Your task to perform on an android device: change notification settings in the gmail app Image 0: 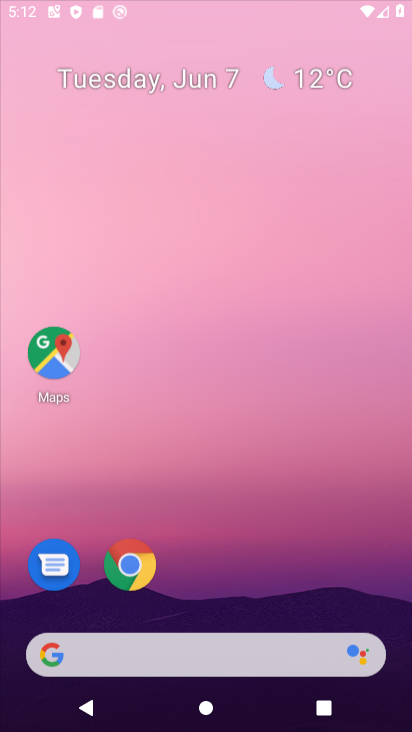
Step 0: press back button
Your task to perform on an android device: change notification settings in the gmail app Image 1: 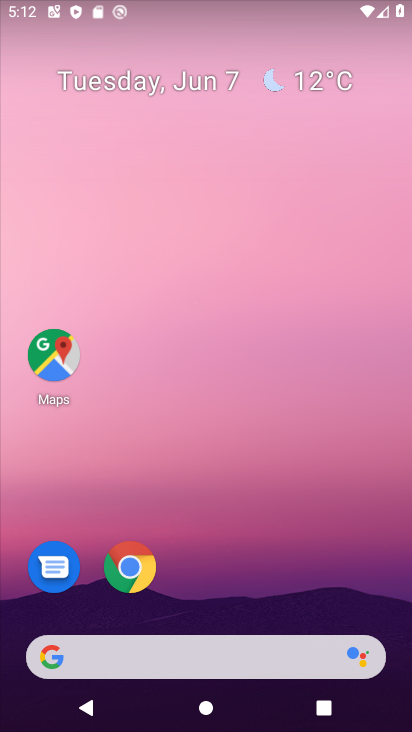
Step 1: drag from (257, 447) to (233, 40)
Your task to perform on an android device: change notification settings in the gmail app Image 2: 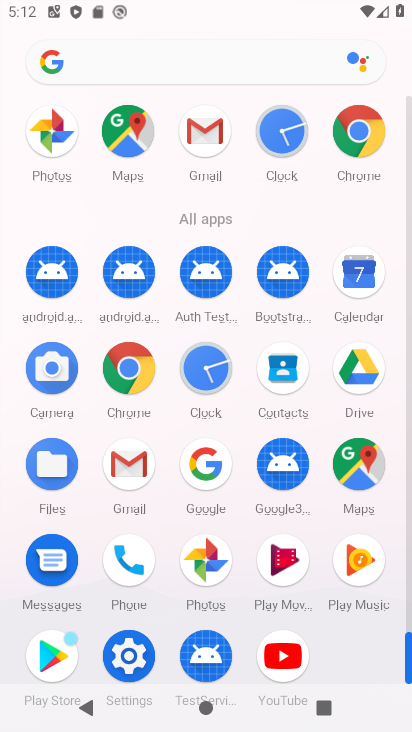
Step 2: drag from (6, 621) to (18, 299)
Your task to perform on an android device: change notification settings in the gmail app Image 3: 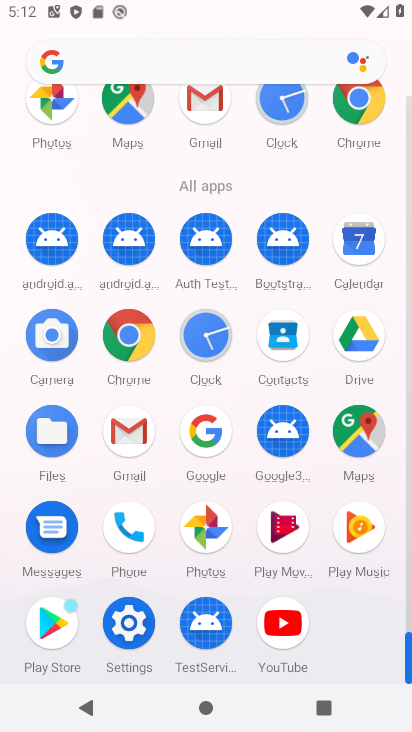
Step 3: click (128, 424)
Your task to perform on an android device: change notification settings in the gmail app Image 4: 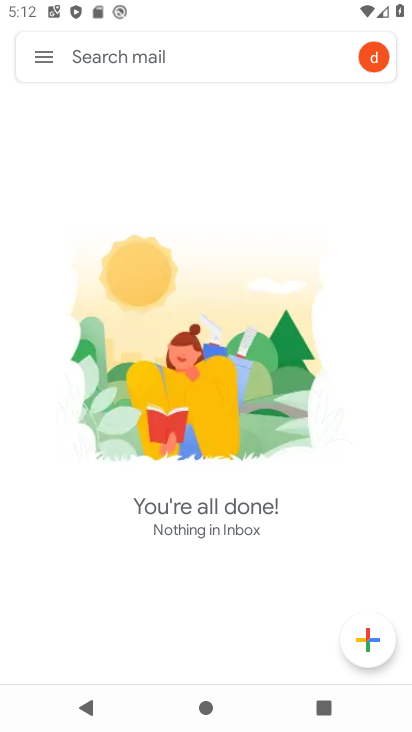
Step 4: click (31, 62)
Your task to perform on an android device: change notification settings in the gmail app Image 5: 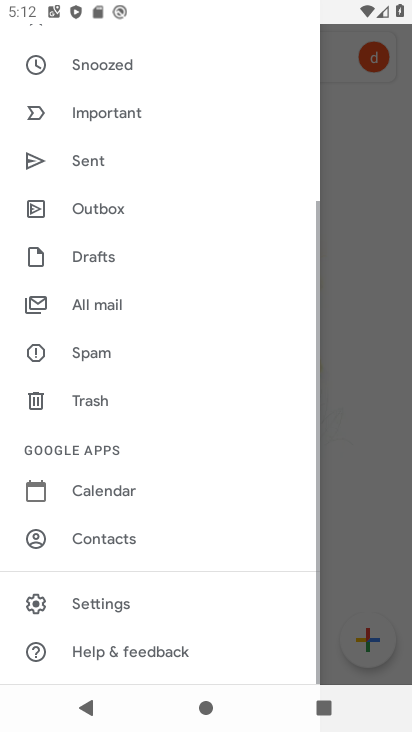
Step 5: drag from (147, 595) to (181, 169)
Your task to perform on an android device: change notification settings in the gmail app Image 6: 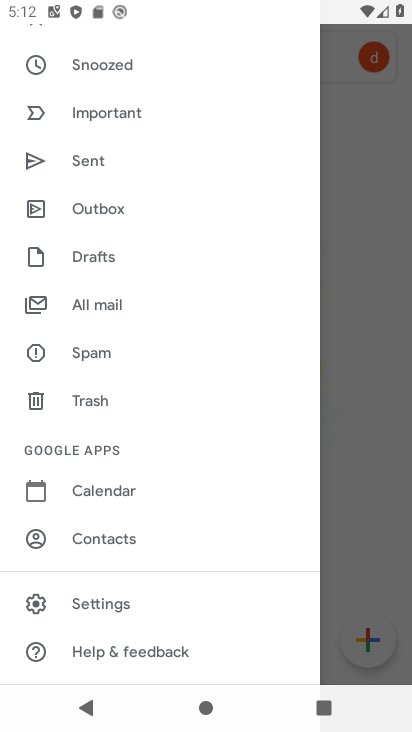
Step 6: click (122, 605)
Your task to perform on an android device: change notification settings in the gmail app Image 7: 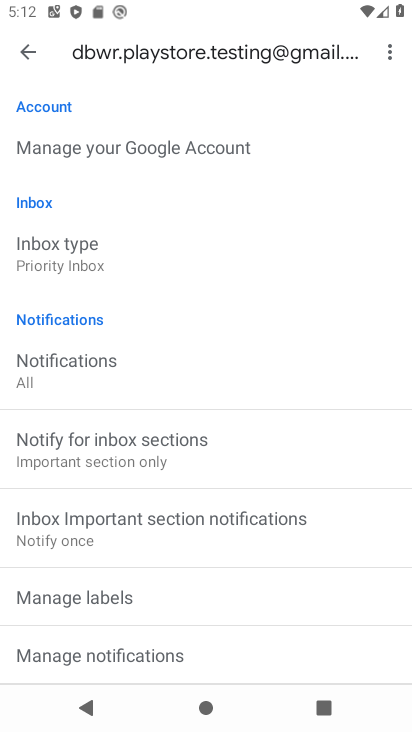
Step 7: drag from (179, 581) to (241, 195)
Your task to perform on an android device: change notification settings in the gmail app Image 8: 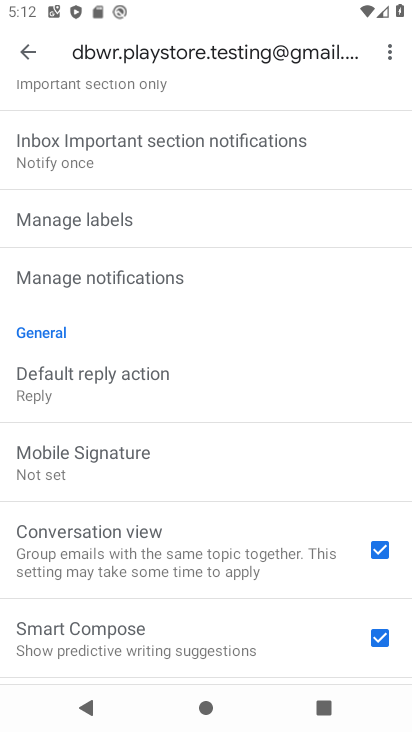
Step 8: click (173, 275)
Your task to perform on an android device: change notification settings in the gmail app Image 9: 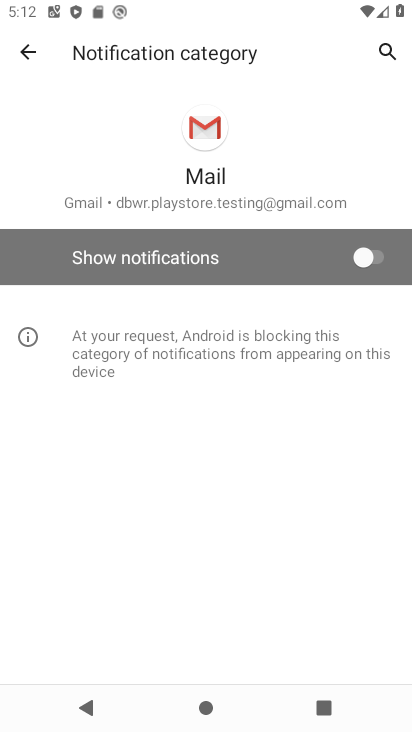
Step 9: click (367, 260)
Your task to perform on an android device: change notification settings in the gmail app Image 10: 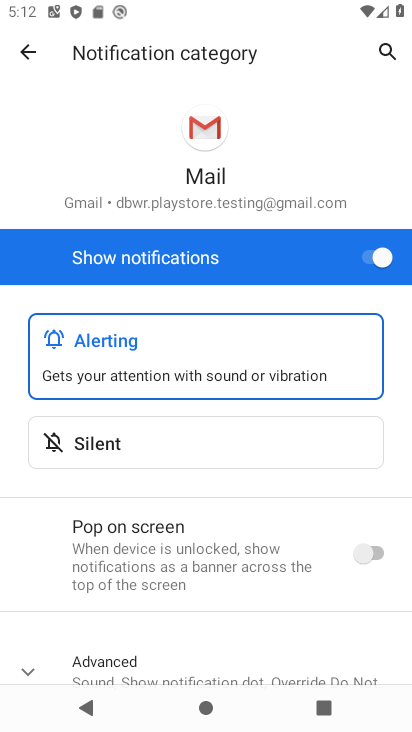
Step 10: task complete